Your task to perform on an android device: turn off picture-in-picture Image 0: 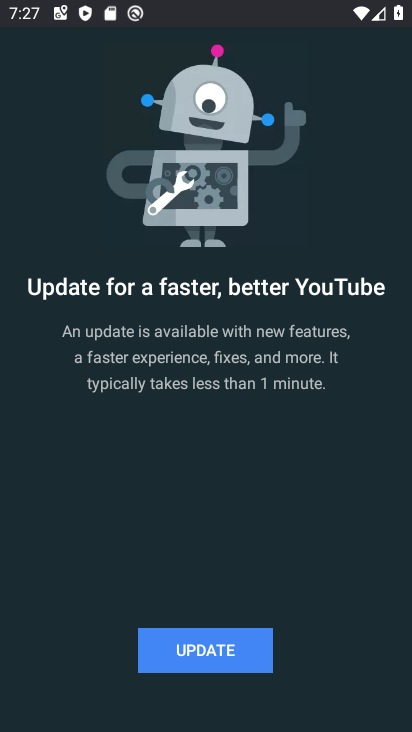
Step 0: press home button
Your task to perform on an android device: turn off picture-in-picture Image 1: 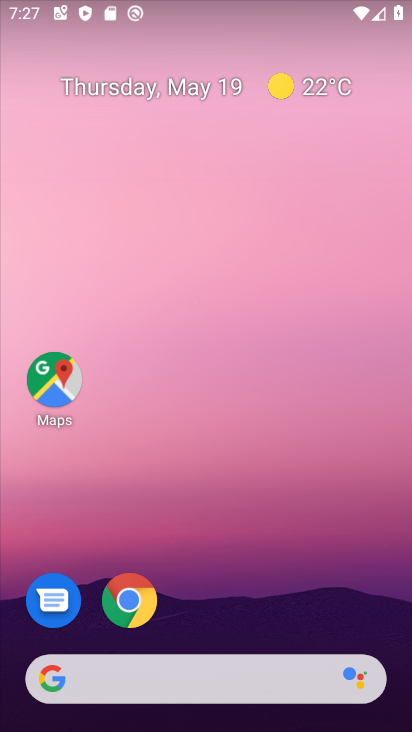
Step 1: drag from (353, 605) to (340, 224)
Your task to perform on an android device: turn off picture-in-picture Image 2: 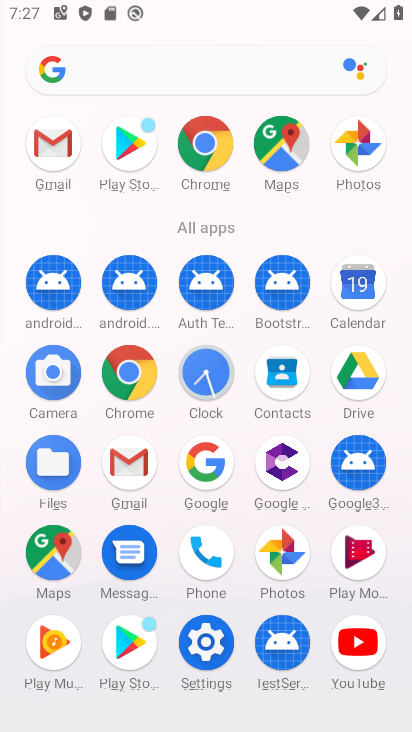
Step 2: click (208, 662)
Your task to perform on an android device: turn off picture-in-picture Image 3: 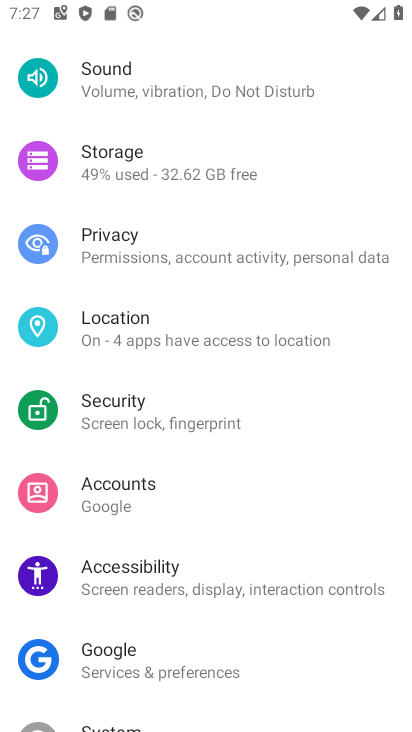
Step 3: drag from (215, 195) to (223, 605)
Your task to perform on an android device: turn off picture-in-picture Image 4: 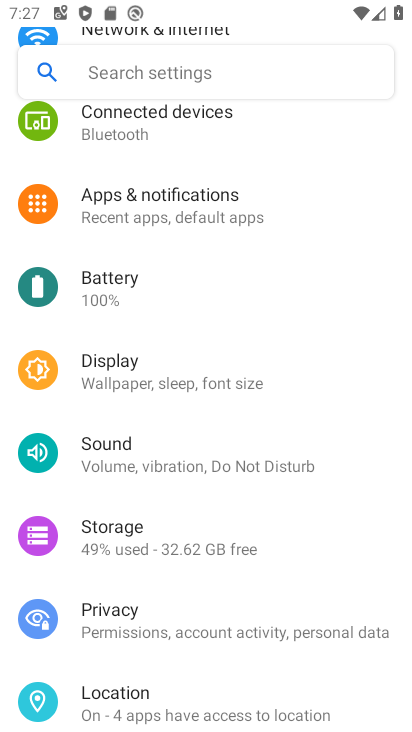
Step 4: click (170, 199)
Your task to perform on an android device: turn off picture-in-picture Image 5: 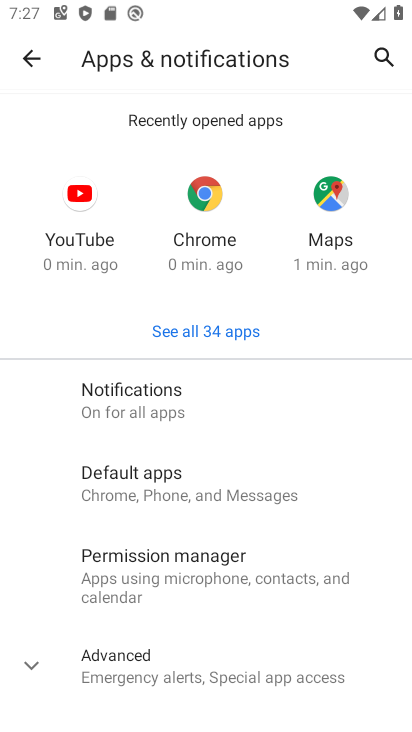
Step 5: drag from (299, 646) to (295, 296)
Your task to perform on an android device: turn off picture-in-picture Image 6: 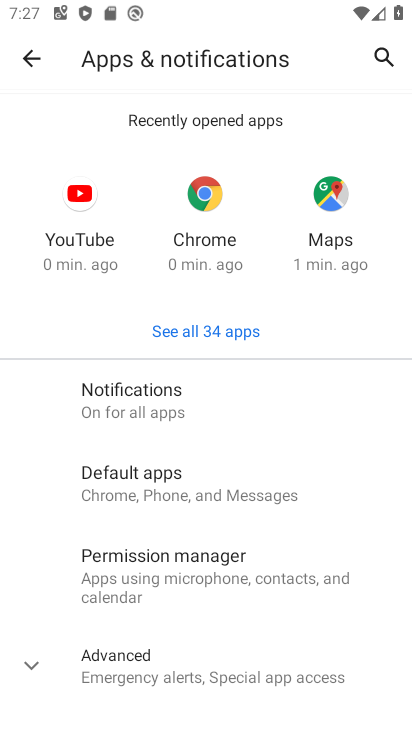
Step 6: click (161, 662)
Your task to perform on an android device: turn off picture-in-picture Image 7: 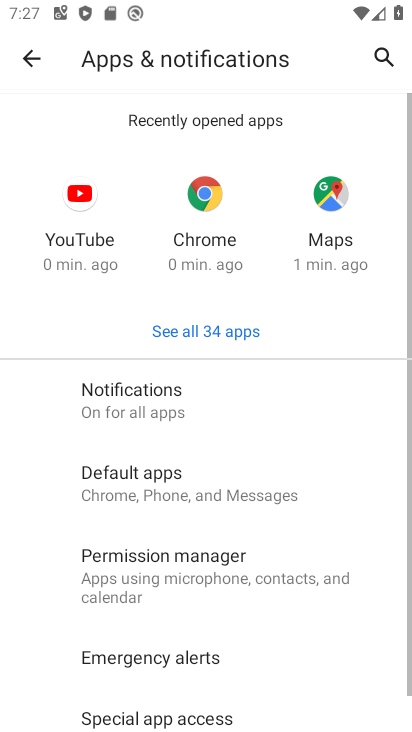
Step 7: drag from (306, 633) to (300, 382)
Your task to perform on an android device: turn off picture-in-picture Image 8: 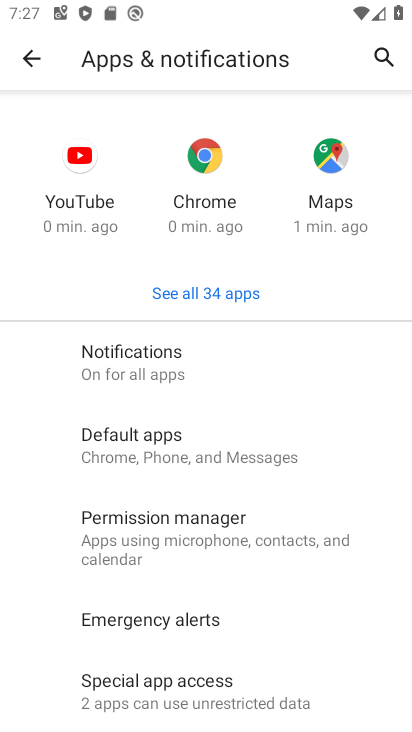
Step 8: click (214, 670)
Your task to perform on an android device: turn off picture-in-picture Image 9: 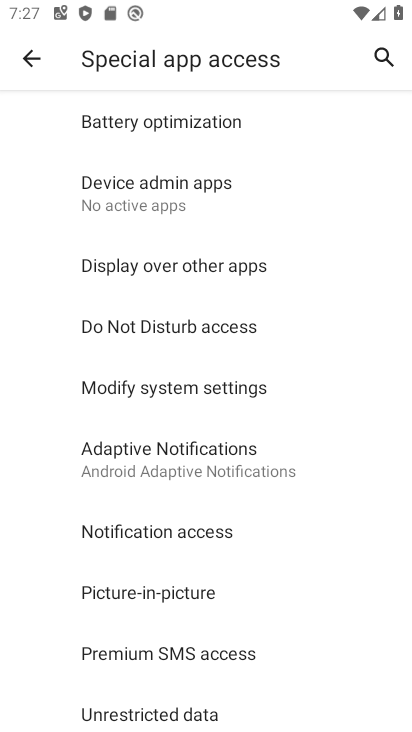
Step 9: click (209, 593)
Your task to perform on an android device: turn off picture-in-picture Image 10: 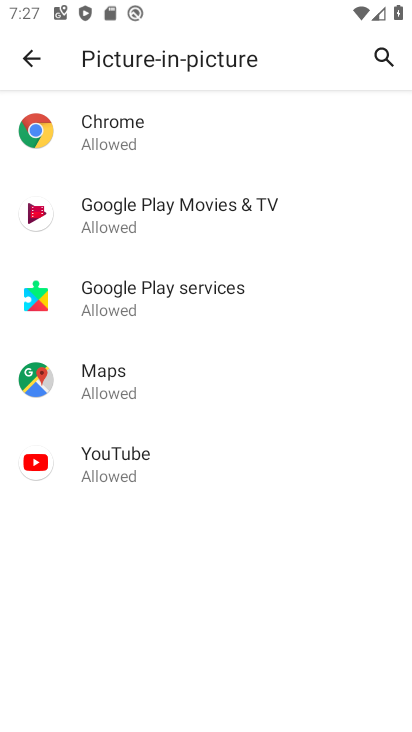
Step 10: click (140, 129)
Your task to perform on an android device: turn off picture-in-picture Image 11: 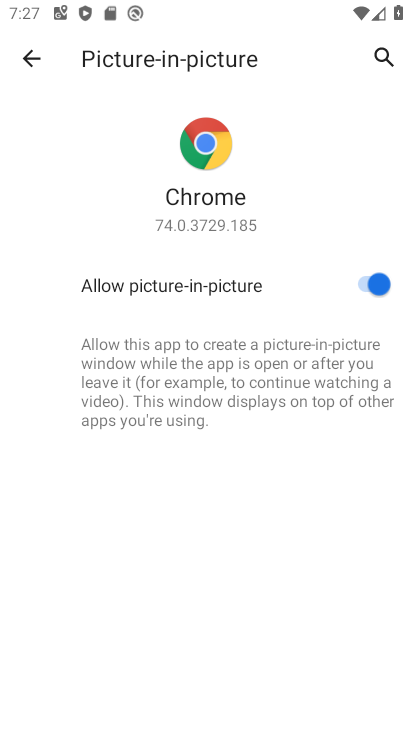
Step 11: click (367, 287)
Your task to perform on an android device: turn off picture-in-picture Image 12: 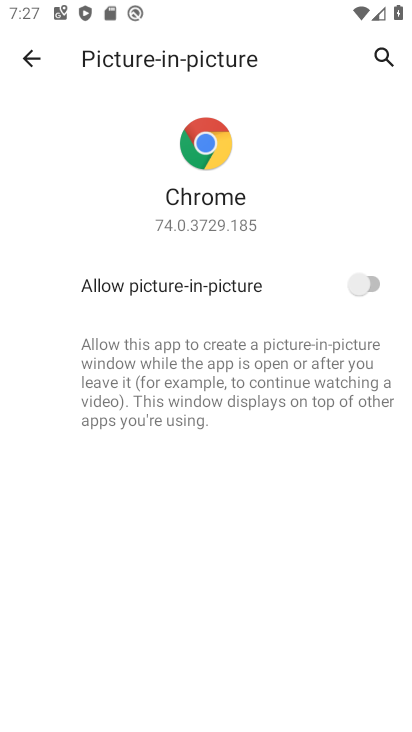
Step 12: task complete